Your task to perform on an android device: empty trash in google photos Image 0: 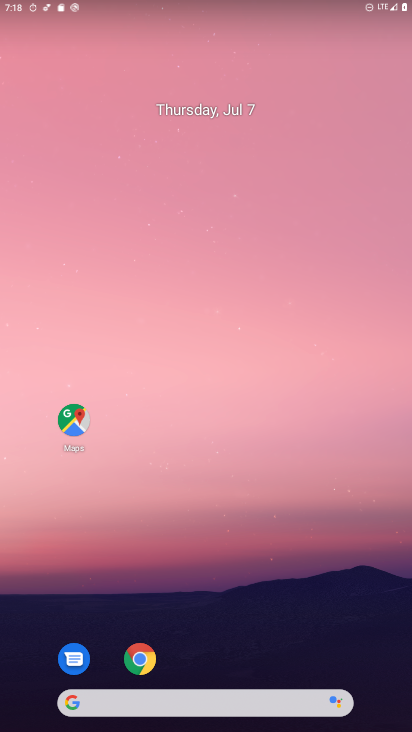
Step 0: drag from (360, 655) to (195, 64)
Your task to perform on an android device: empty trash in google photos Image 1: 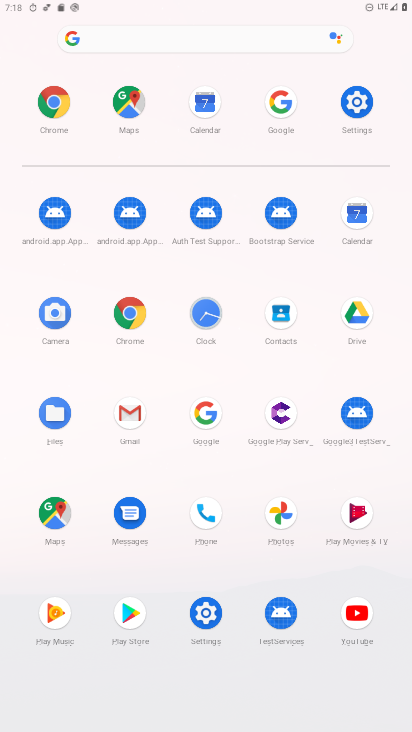
Step 1: click (279, 511)
Your task to perform on an android device: empty trash in google photos Image 2: 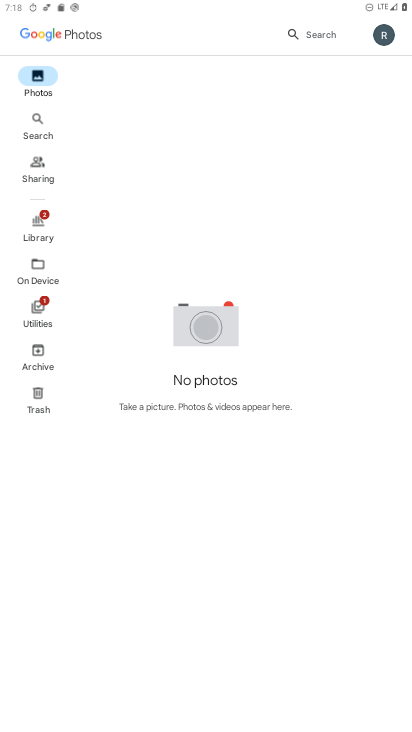
Step 2: click (31, 388)
Your task to perform on an android device: empty trash in google photos Image 3: 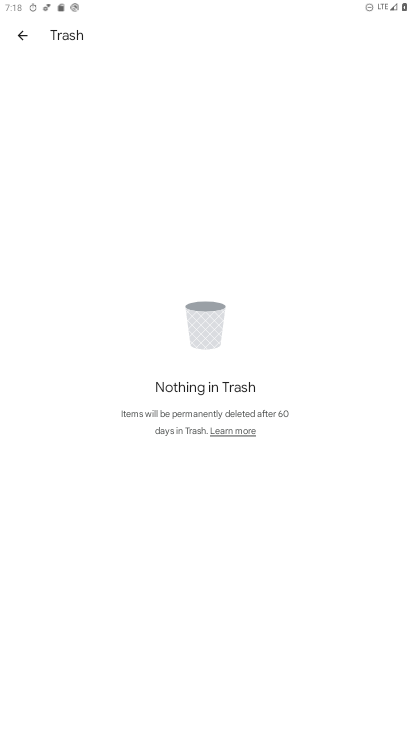
Step 3: task complete